Your task to perform on an android device: toggle improve location accuracy Image 0: 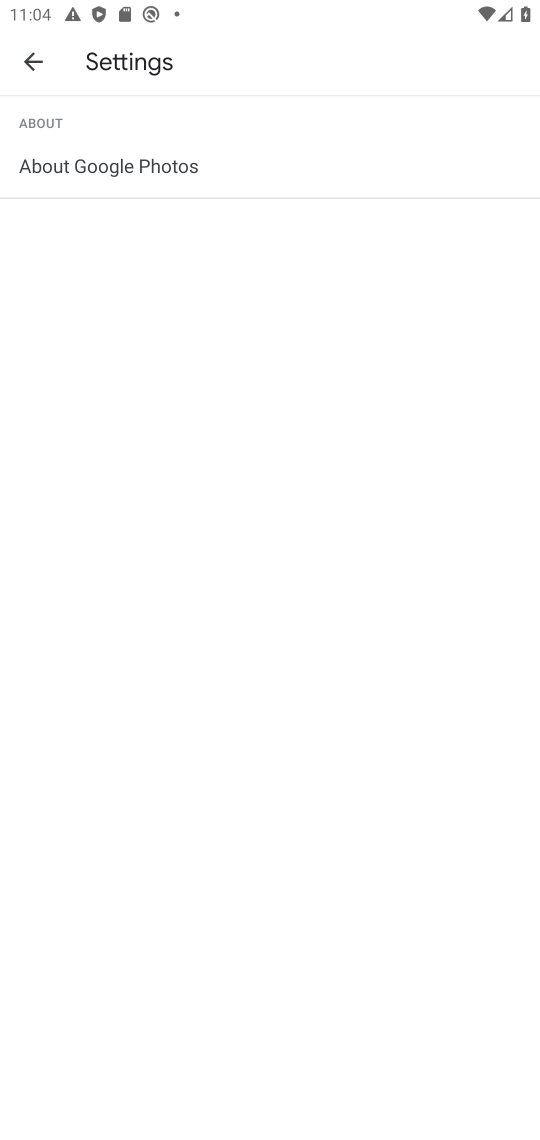
Step 0: click (475, 975)
Your task to perform on an android device: toggle improve location accuracy Image 1: 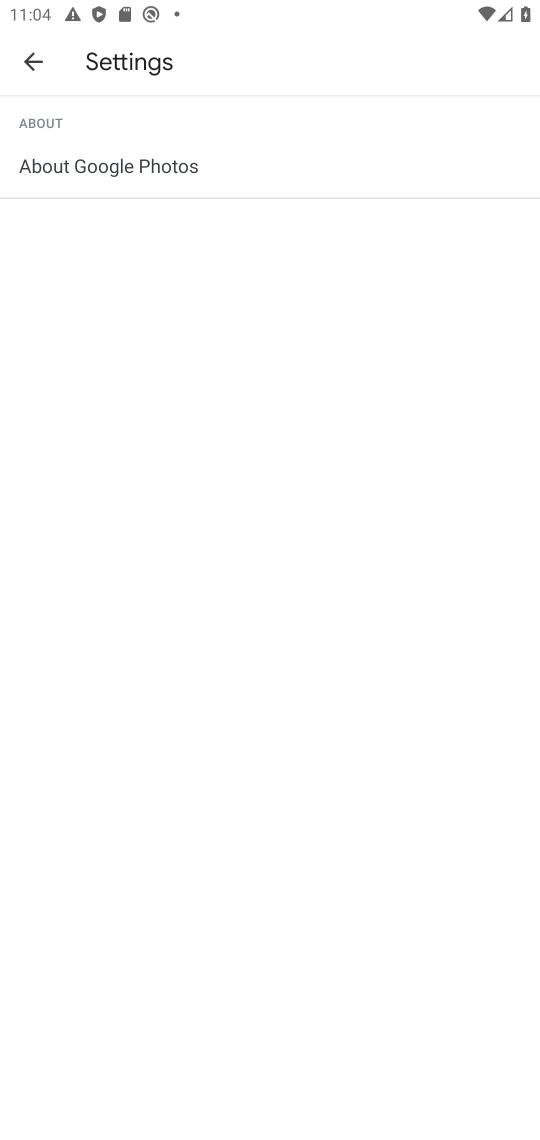
Step 1: press home button
Your task to perform on an android device: toggle improve location accuracy Image 2: 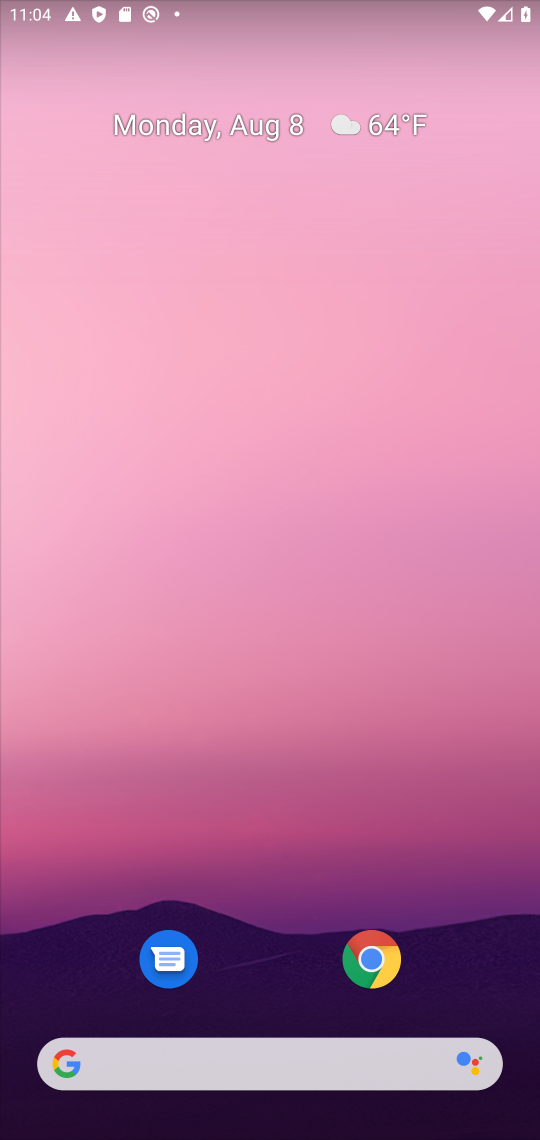
Step 2: drag from (457, 983) to (336, 167)
Your task to perform on an android device: toggle improve location accuracy Image 3: 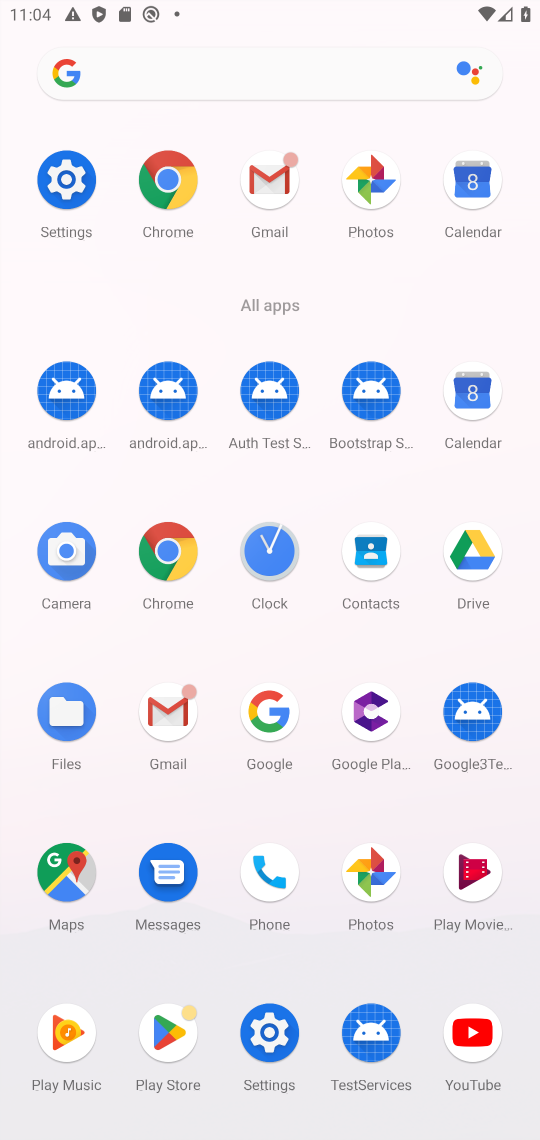
Step 3: click (77, 208)
Your task to perform on an android device: toggle improve location accuracy Image 4: 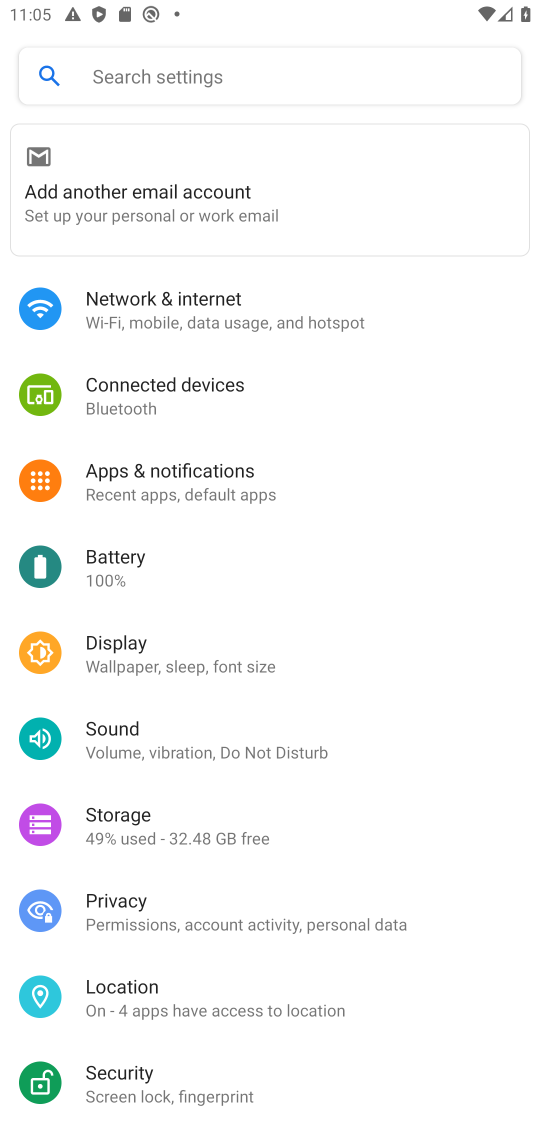
Step 4: click (177, 982)
Your task to perform on an android device: toggle improve location accuracy Image 5: 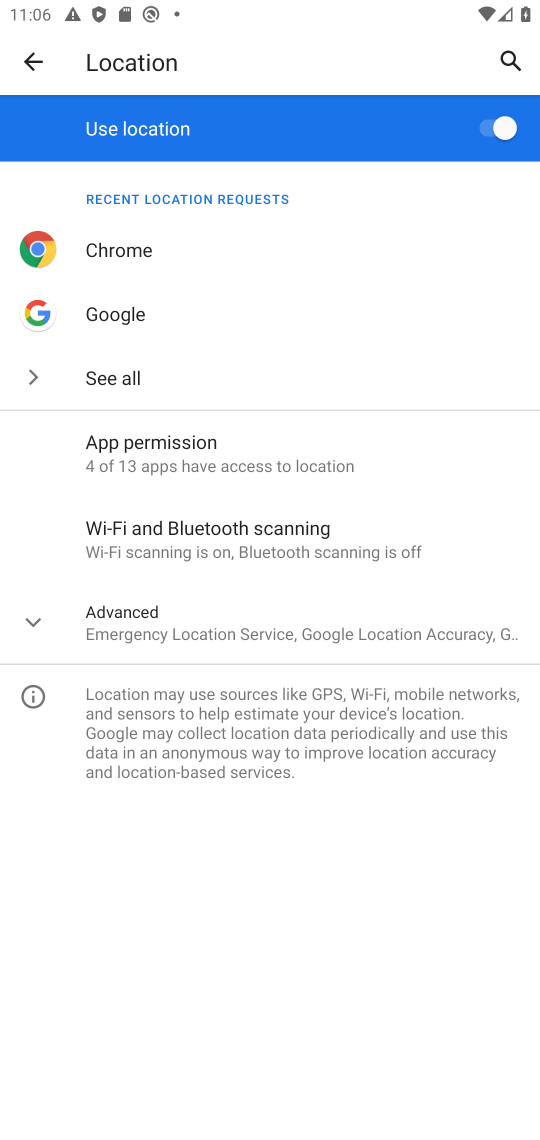
Step 5: click (239, 627)
Your task to perform on an android device: toggle improve location accuracy Image 6: 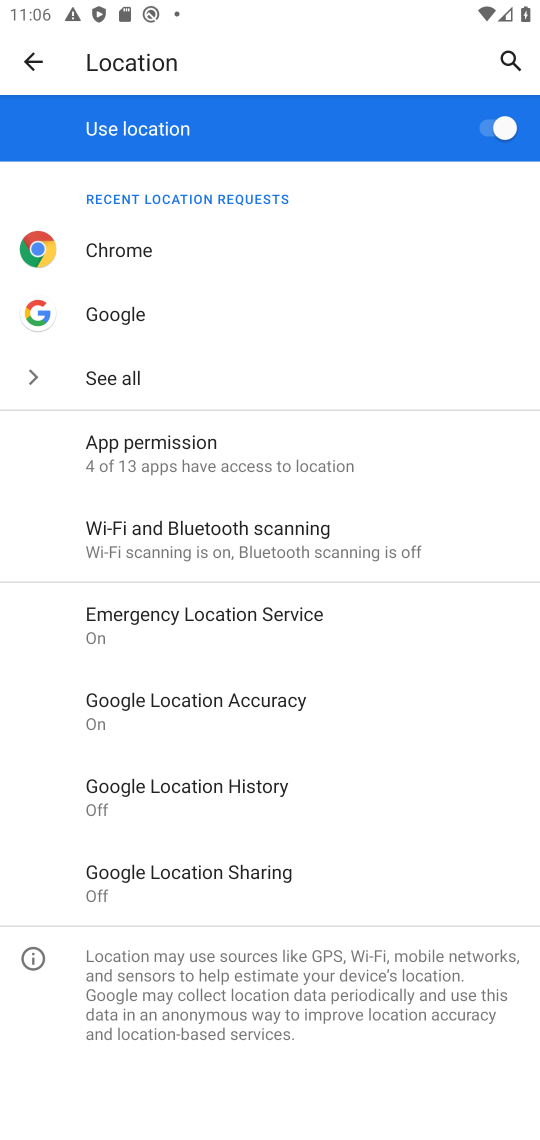
Step 6: click (241, 716)
Your task to perform on an android device: toggle improve location accuracy Image 7: 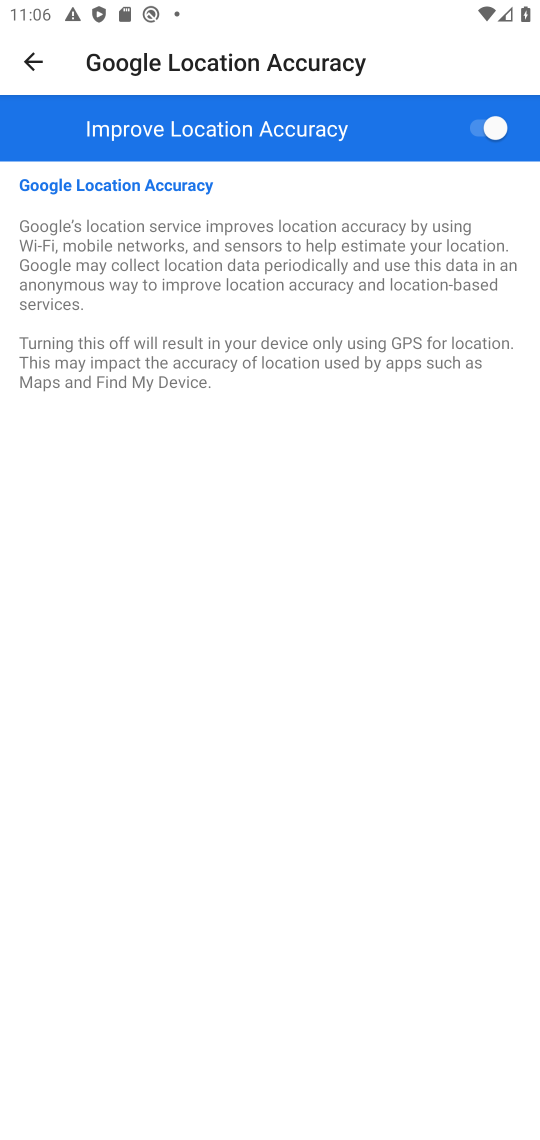
Step 7: task complete